Your task to perform on an android device: turn on airplane mode Image 0: 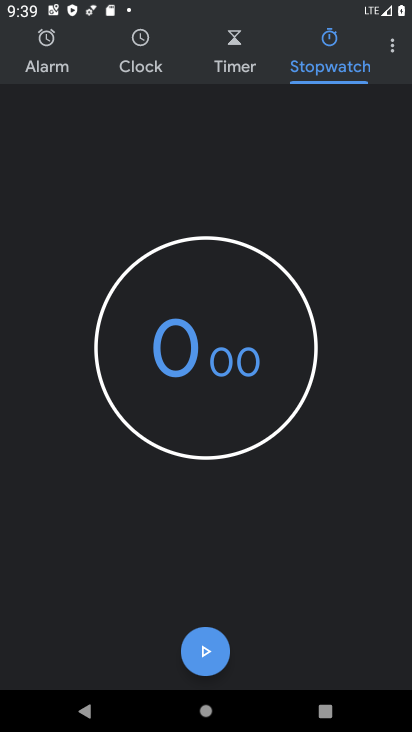
Step 0: press home button
Your task to perform on an android device: turn on airplane mode Image 1: 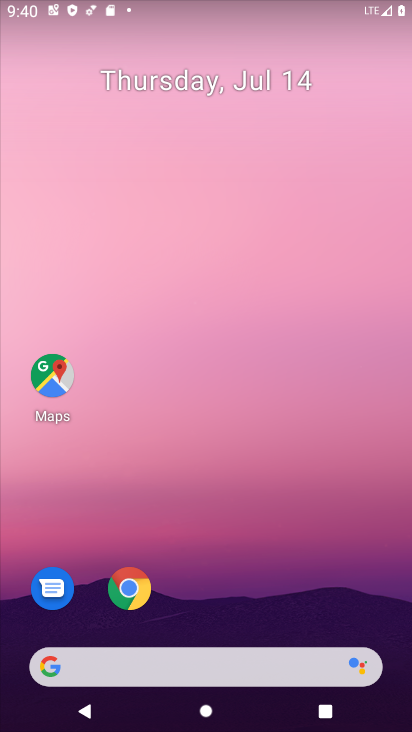
Step 1: drag from (163, 14) to (214, 523)
Your task to perform on an android device: turn on airplane mode Image 2: 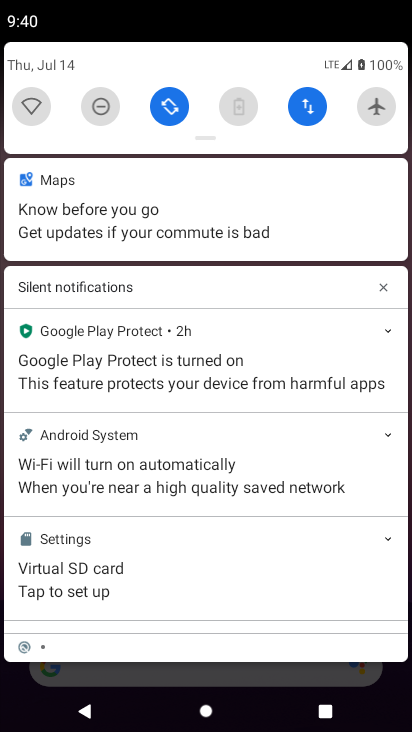
Step 2: click (359, 109)
Your task to perform on an android device: turn on airplane mode Image 3: 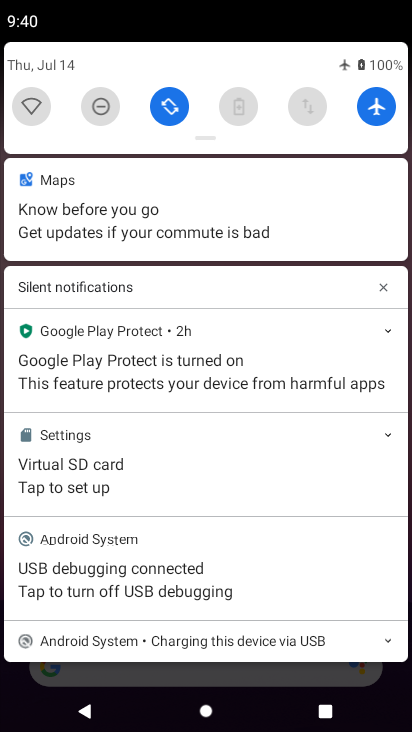
Step 3: task complete